Your task to perform on an android device: Open the calendar and show me this week's events? Image 0: 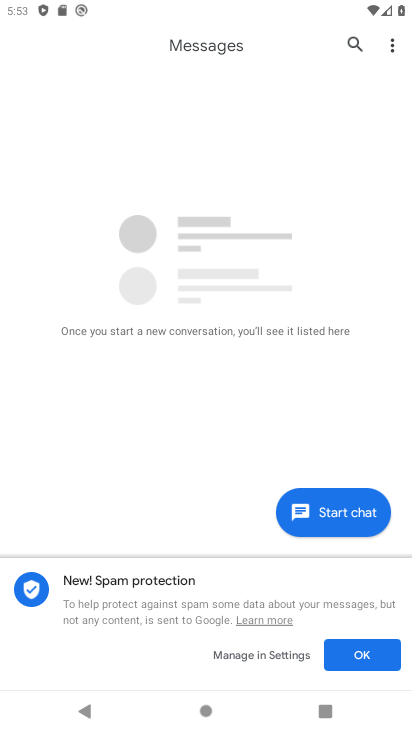
Step 0: press home button
Your task to perform on an android device: Open the calendar and show me this week's events? Image 1: 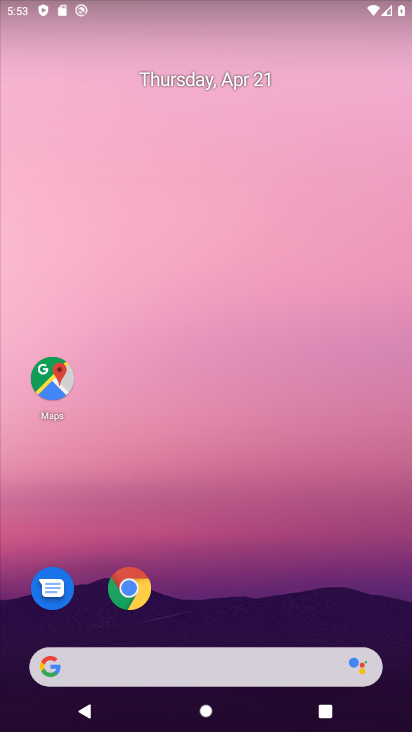
Step 1: drag from (248, 529) to (298, 255)
Your task to perform on an android device: Open the calendar and show me this week's events? Image 2: 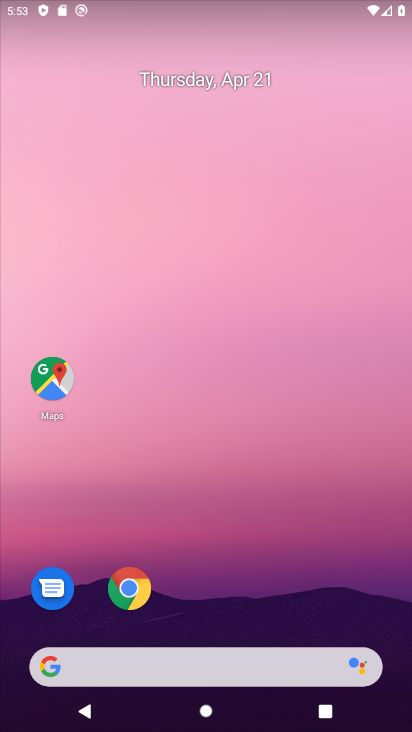
Step 2: drag from (239, 594) to (225, 179)
Your task to perform on an android device: Open the calendar and show me this week's events? Image 3: 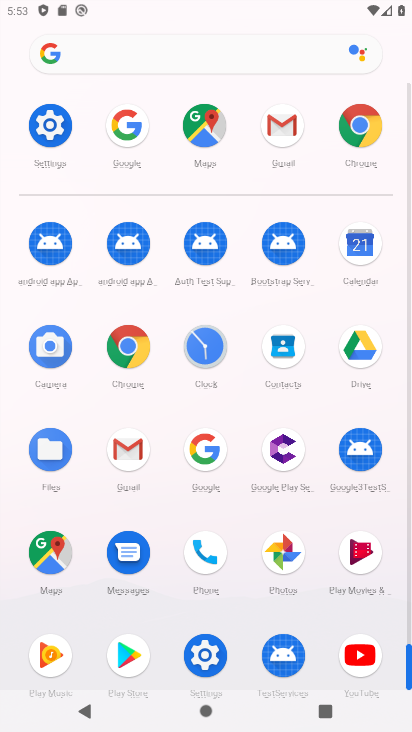
Step 3: click (361, 250)
Your task to perform on an android device: Open the calendar and show me this week's events? Image 4: 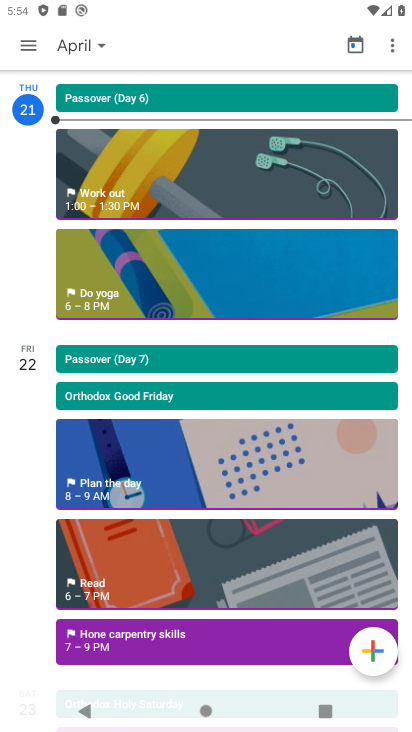
Step 4: click (77, 40)
Your task to perform on an android device: Open the calendar and show me this week's events? Image 5: 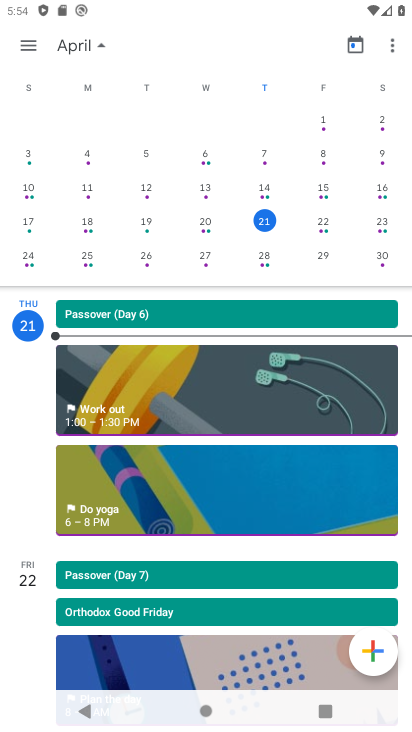
Step 5: click (30, 226)
Your task to perform on an android device: Open the calendar and show me this week's events? Image 6: 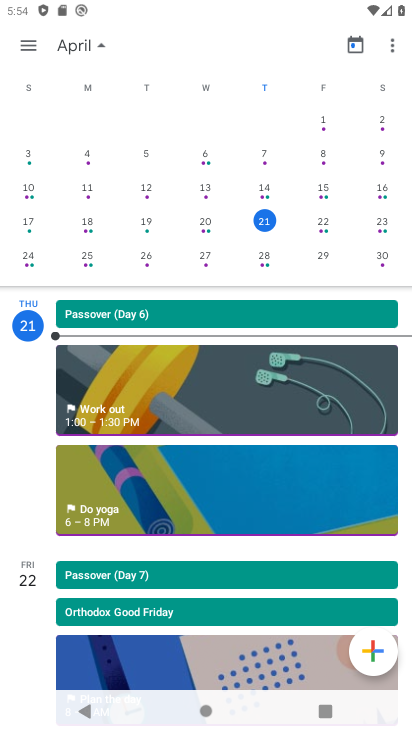
Step 6: click (31, 221)
Your task to perform on an android device: Open the calendar and show me this week's events? Image 7: 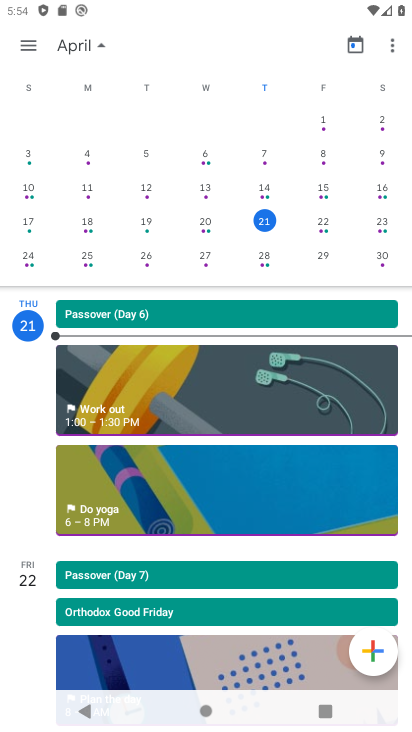
Step 7: click (31, 221)
Your task to perform on an android device: Open the calendar and show me this week's events? Image 8: 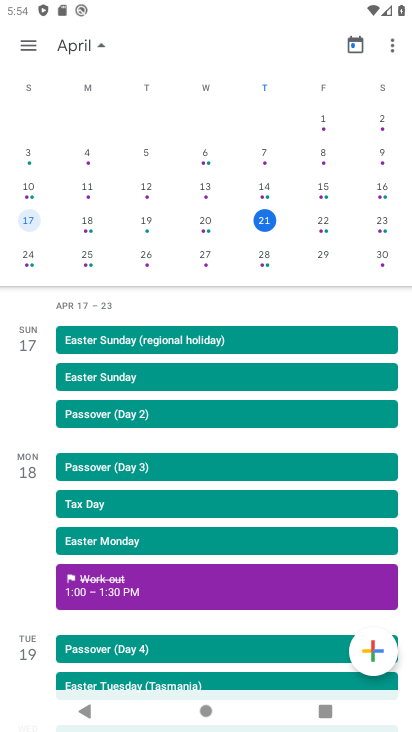
Step 8: click (31, 221)
Your task to perform on an android device: Open the calendar and show me this week's events? Image 9: 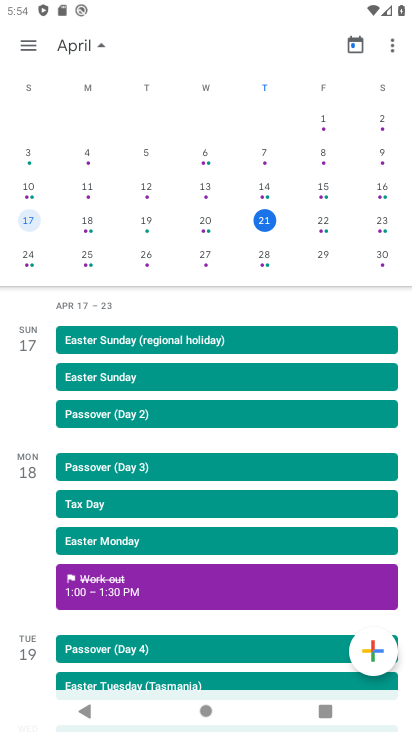
Step 9: click (31, 221)
Your task to perform on an android device: Open the calendar and show me this week's events? Image 10: 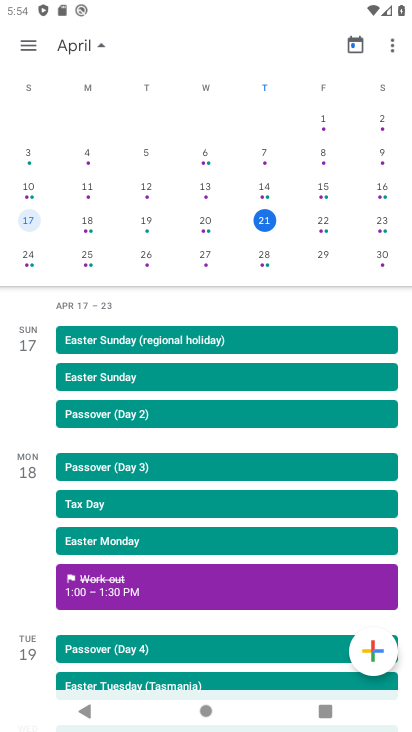
Step 10: click (28, 59)
Your task to perform on an android device: Open the calendar and show me this week's events? Image 11: 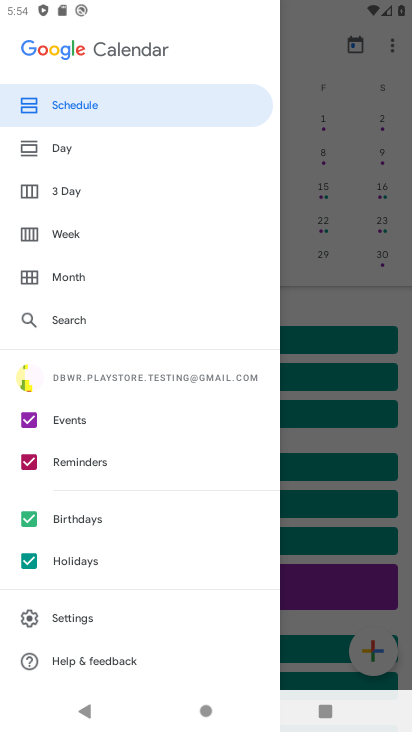
Step 11: click (52, 238)
Your task to perform on an android device: Open the calendar and show me this week's events? Image 12: 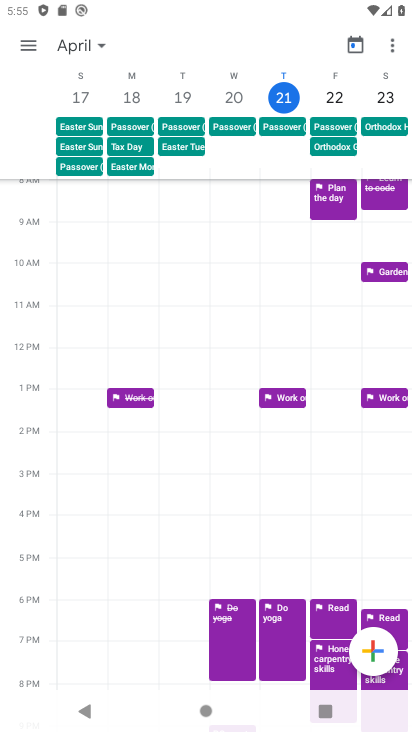
Step 12: click (263, 517)
Your task to perform on an android device: Open the calendar and show me this week's events? Image 13: 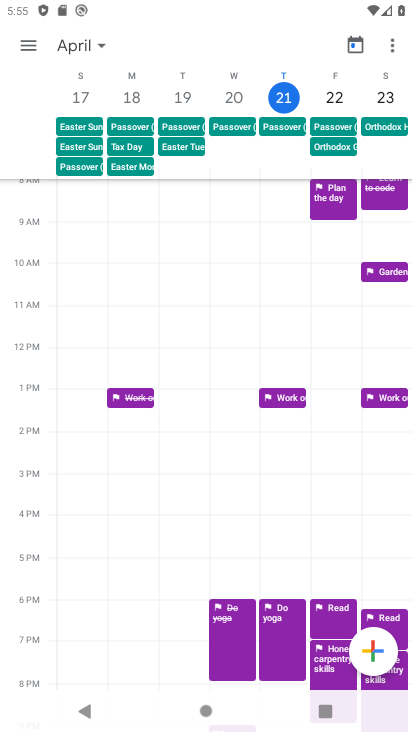
Step 13: task complete